Your task to perform on an android device: Open maps Image 0: 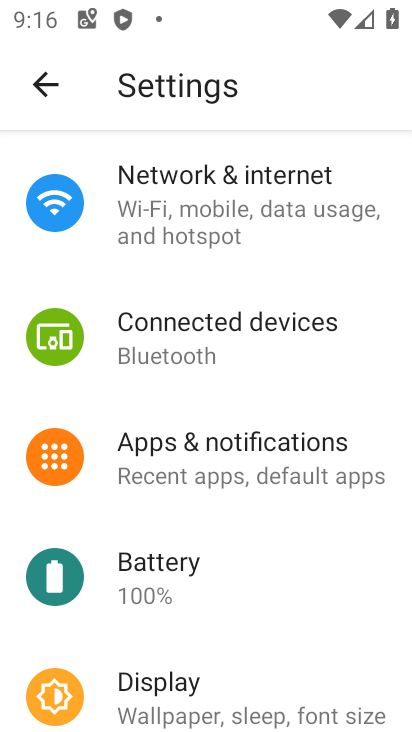
Step 0: press back button
Your task to perform on an android device: Open maps Image 1: 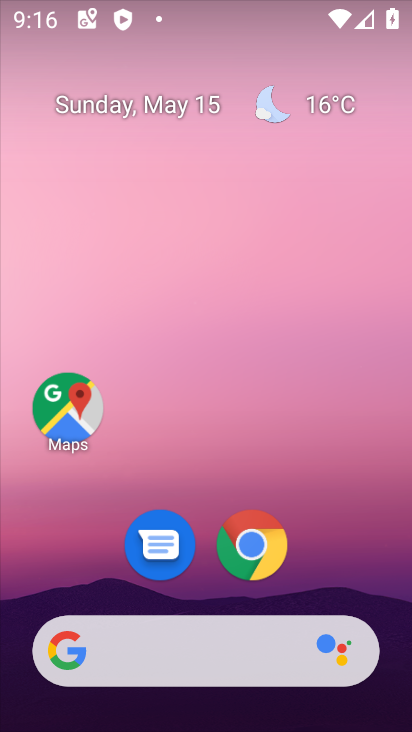
Step 1: click (67, 411)
Your task to perform on an android device: Open maps Image 2: 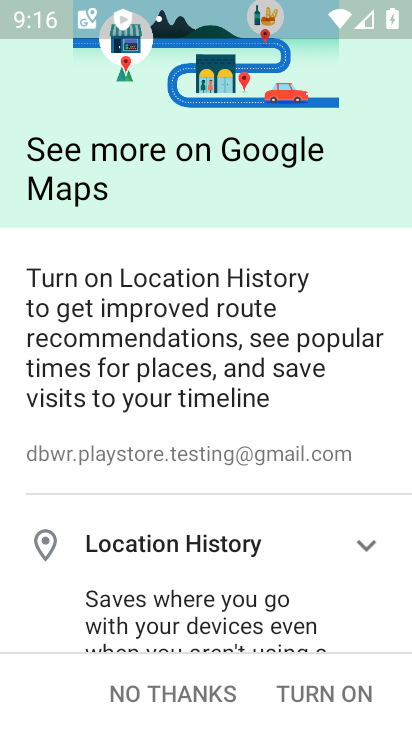
Step 2: click (167, 690)
Your task to perform on an android device: Open maps Image 3: 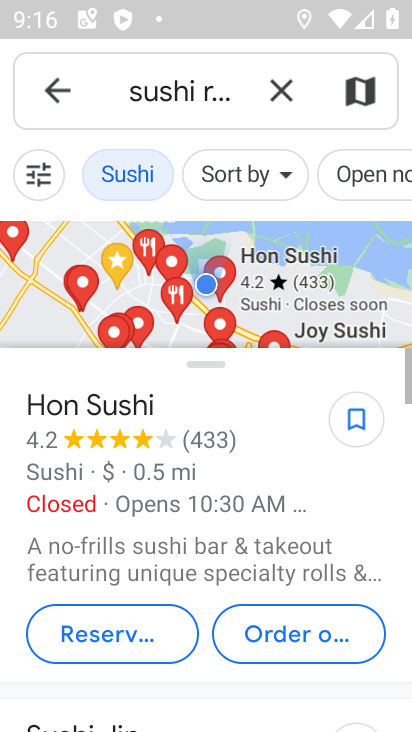
Step 3: click (273, 89)
Your task to perform on an android device: Open maps Image 4: 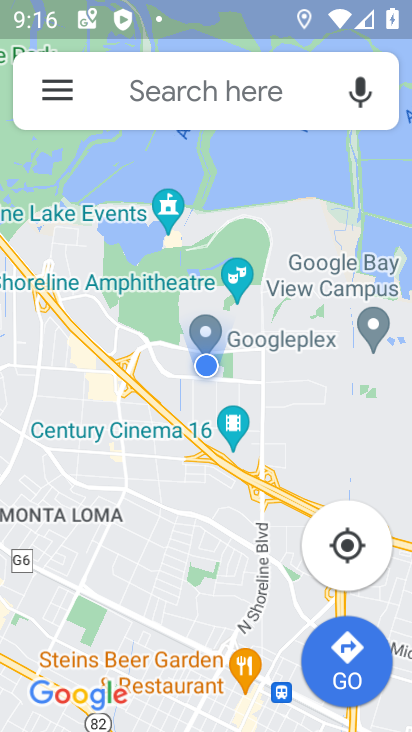
Step 4: task complete